Your task to perform on an android device: Is it going to rain tomorrow? Image 0: 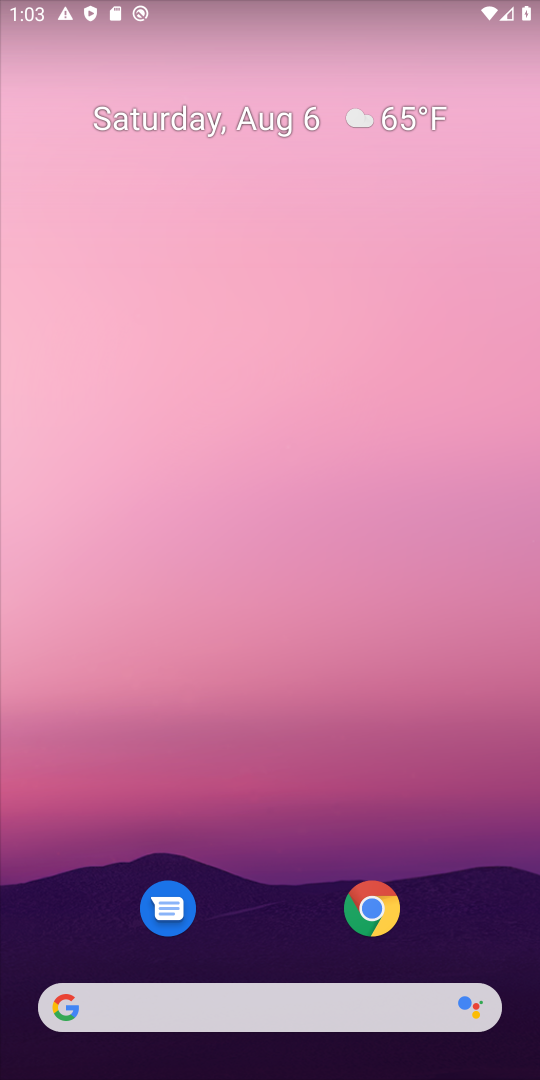
Step 0: click (253, 1005)
Your task to perform on an android device: Is it going to rain tomorrow? Image 1: 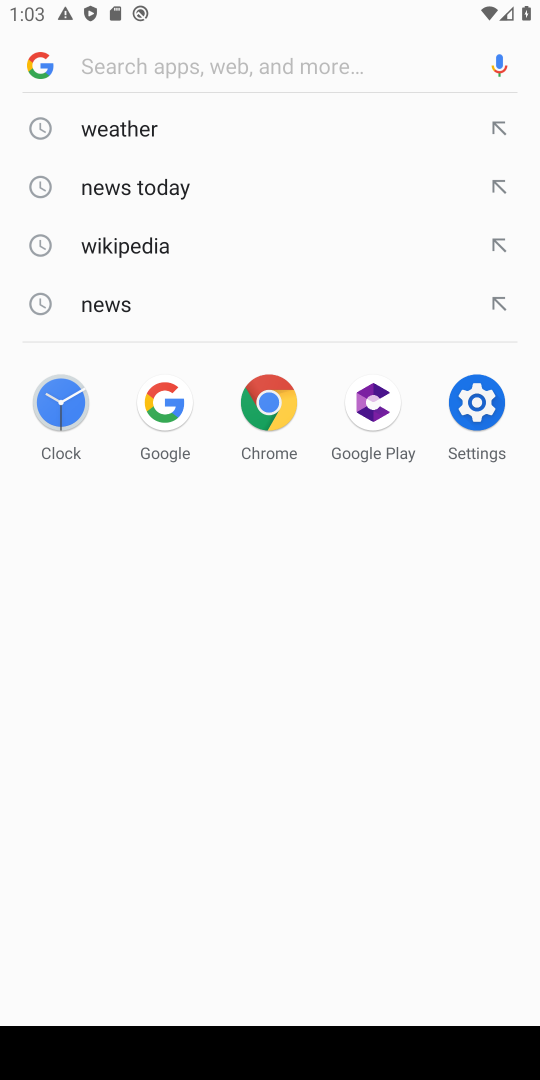
Step 1: type "is it going to rain tomorrow"
Your task to perform on an android device: Is it going to rain tomorrow? Image 2: 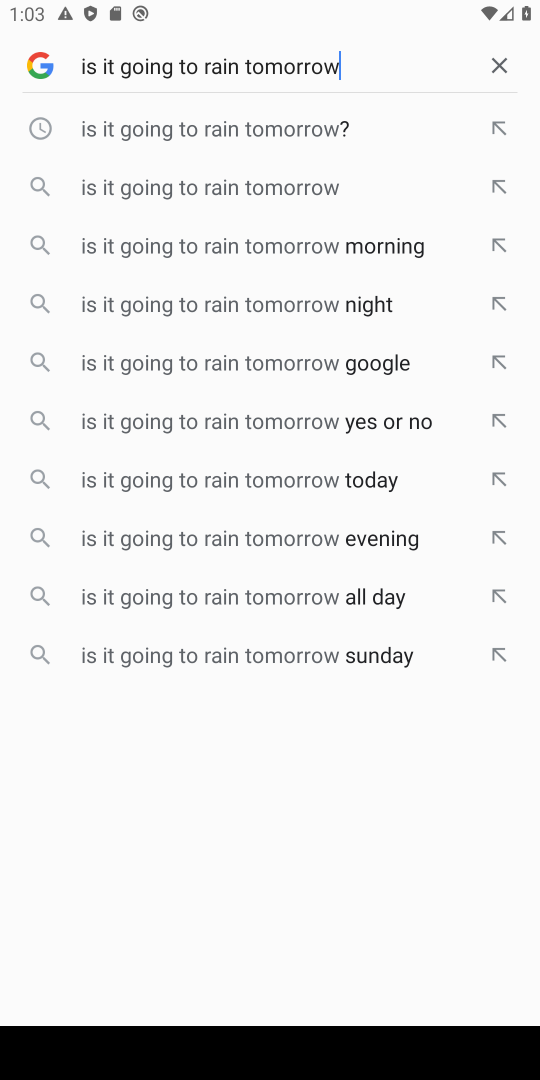
Step 2: click (265, 123)
Your task to perform on an android device: Is it going to rain tomorrow? Image 3: 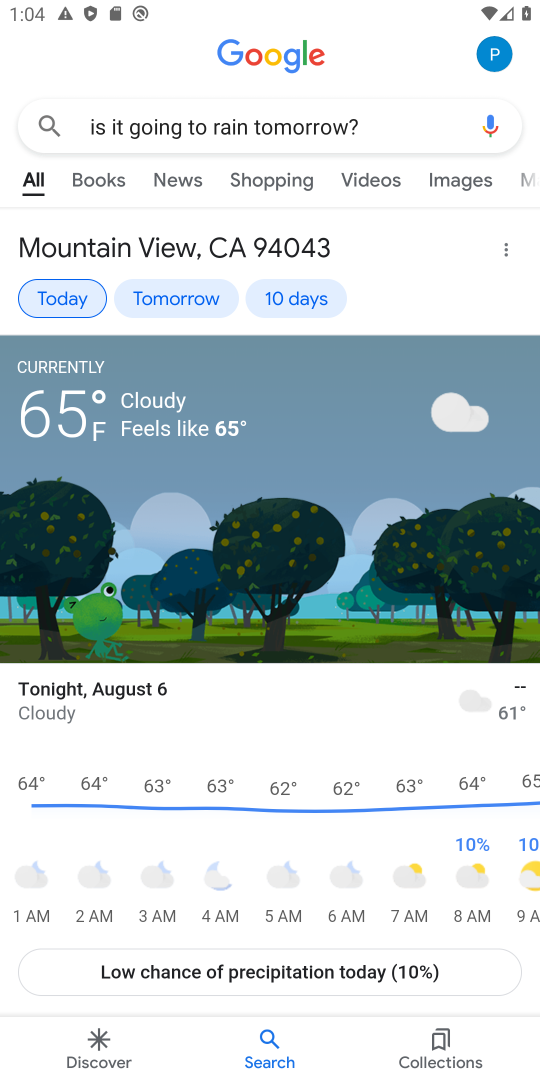
Step 3: click (164, 307)
Your task to perform on an android device: Is it going to rain tomorrow? Image 4: 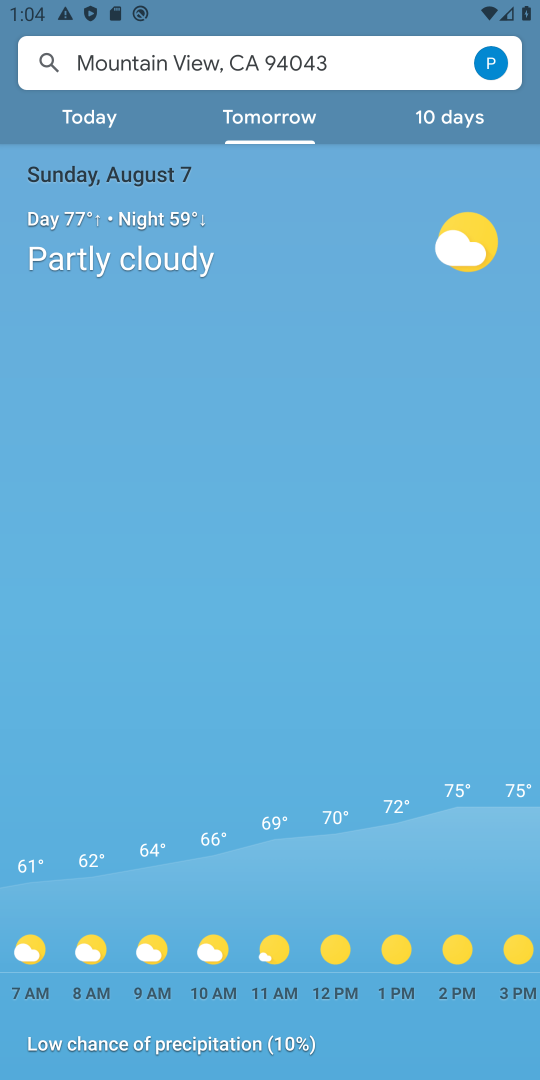
Step 4: task complete